Your task to perform on an android device: delete a single message in the gmail app Image 0: 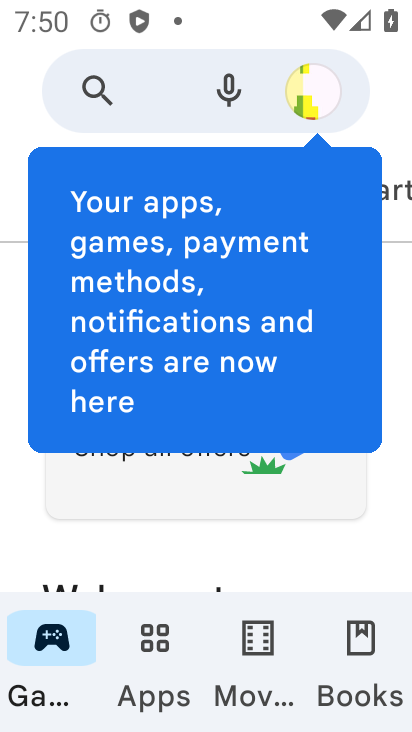
Step 0: press home button
Your task to perform on an android device: delete a single message in the gmail app Image 1: 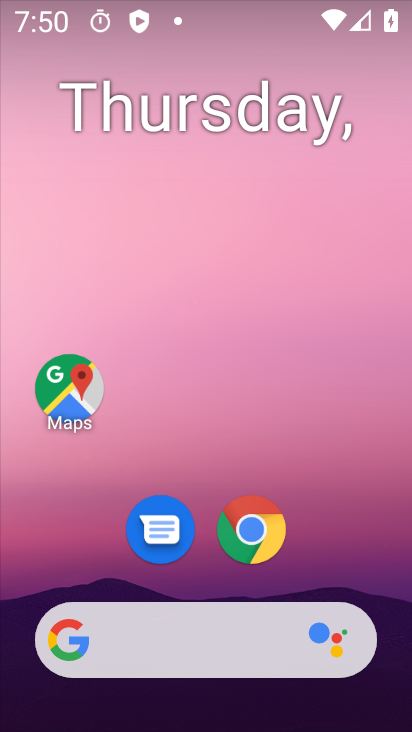
Step 1: drag from (390, 698) to (368, 94)
Your task to perform on an android device: delete a single message in the gmail app Image 2: 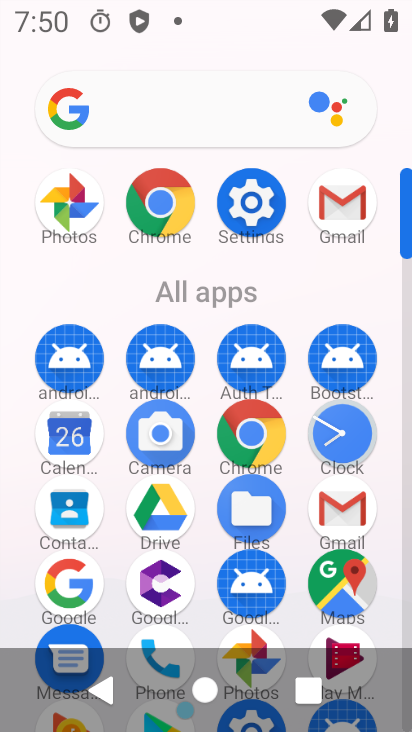
Step 2: click (328, 214)
Your task to perform on an android device: delete a single message in the gmail app Image 3: 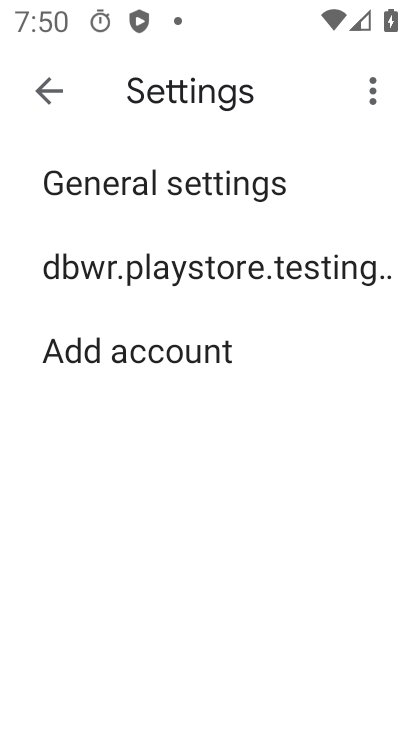
Step 3: click (50, 92)
Your task to perform on an android device: delete a single message in the gmail app Image 4: 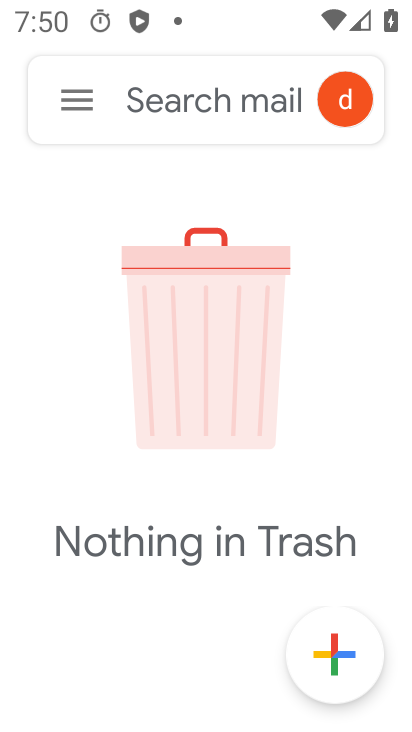
Step 4: click (76, 98)
Your task to perform on an android device: delete a single message in the gmail app Image 5: 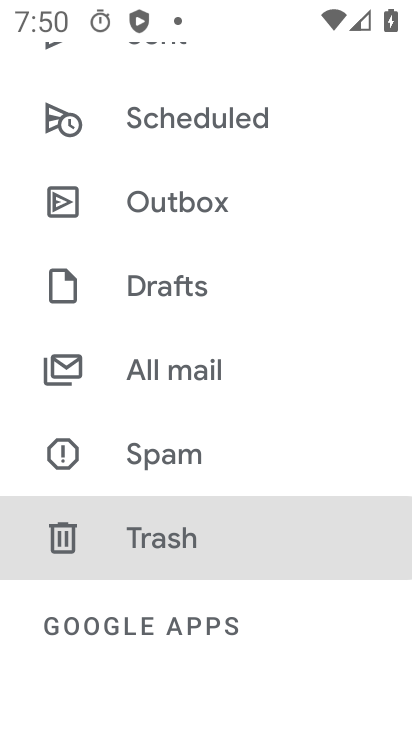
Step 5: drag from (351, 86) to (360, 670)
Your task to perform on an android device: delete a single message in the gmail app Image 6: 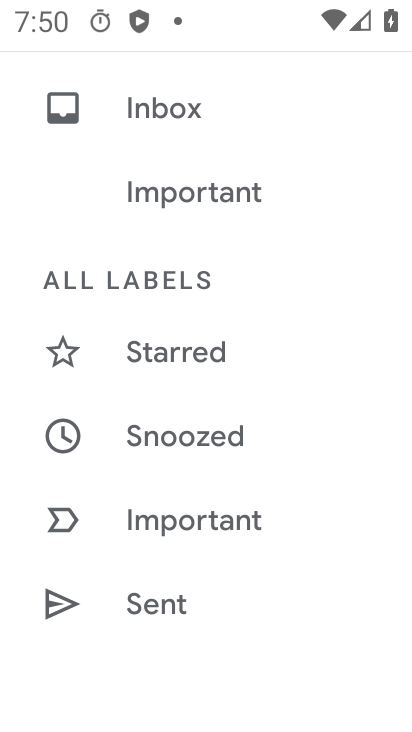
Step 6: drag from (342, 136) to (375, 530)
Your task to perform on an android device: delete a single message in the gmail app Image 7: 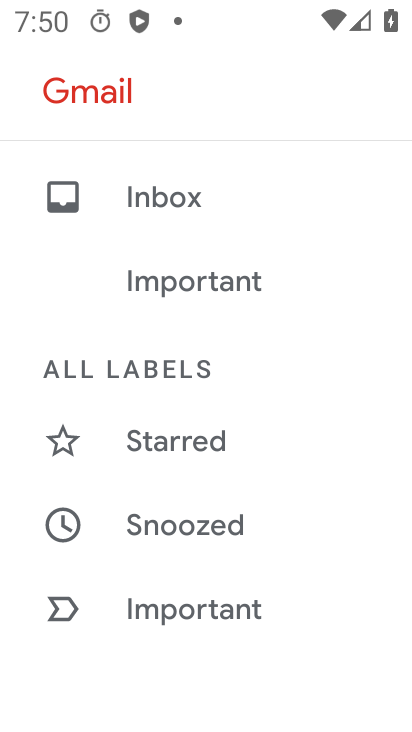
Step 7: click (171, 195)
Your task to perform on an android device: delete a single message in the gmail app Image 8: 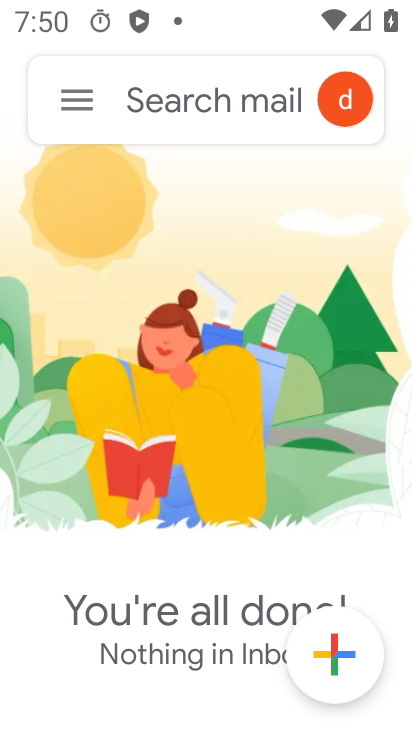
Step 8: task complete